Your task to perform on an android device: Open the stopwatch Image 0: 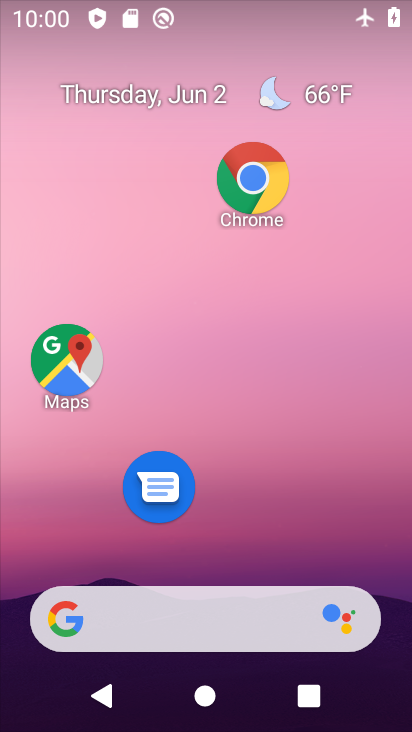
Step 0: drag from (224, 691) to (227, 47)
Your task to perform on an android device: Open the stopwatch Image 1: 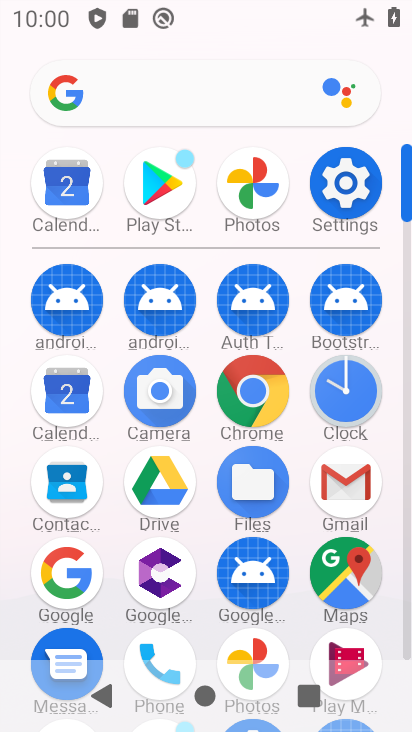
Step 1: click (338, 397)
Your task to perform on an android device: Open the stopwatch Image 2: 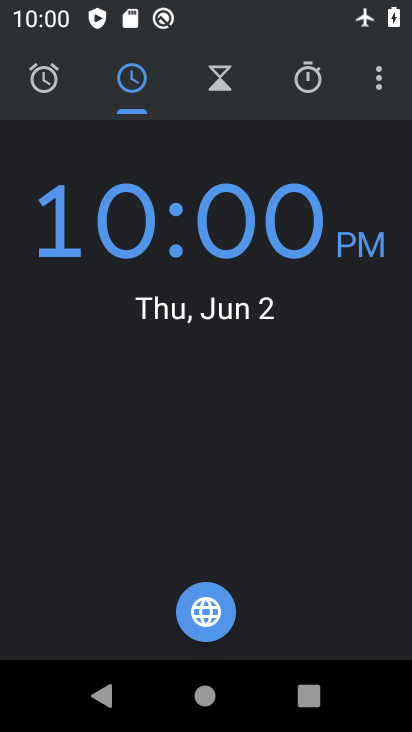
Step 2: click (310, 87)
Your task to perform on an android device: Open the stopwatch Image 3: 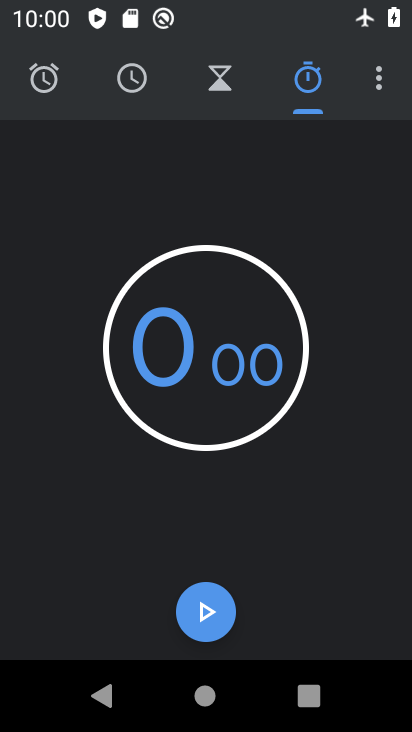
Step 3: task complete